Your task to perform on an android device: open sync settings in chrome Image 0: 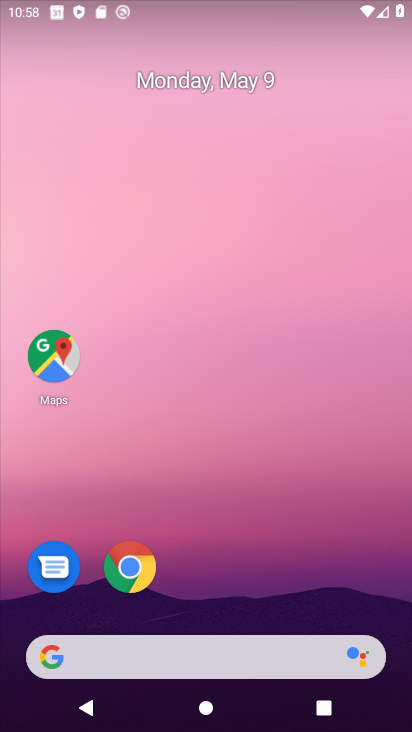
Step 0: drag from (351, 612) to (261, 25)
Your task to perform on an android device: open sync settings in chrome Image 1: 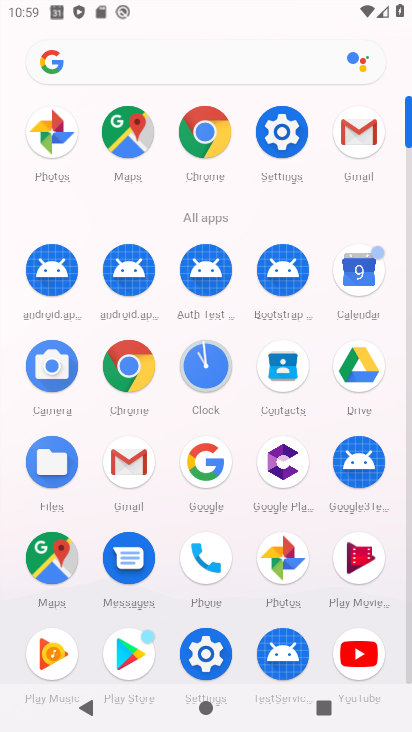
Step 1: click (197, 157)
Your task to perform on an android device: open sync settings in chrome Image 2: 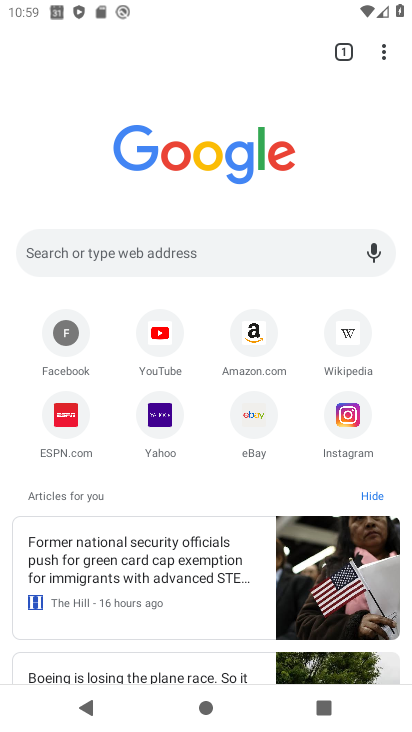
Step 2: click (386, 49)
Your task to perform on an android device: open sync settings in chrome Image 3: 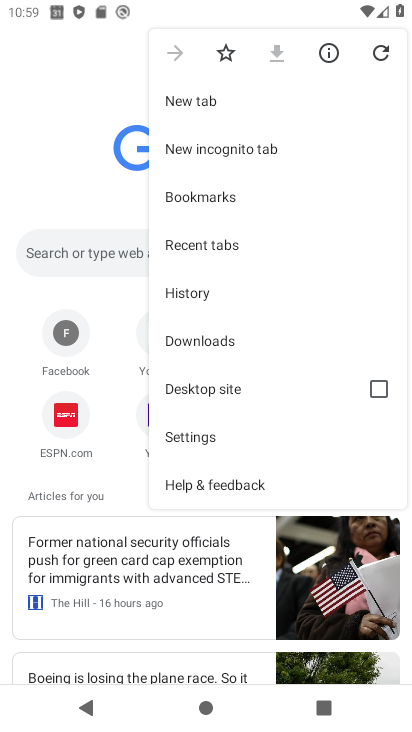
Step 3: click (209, 448)
Your task to perform on an android device: open sync settings in chrome Image 4: 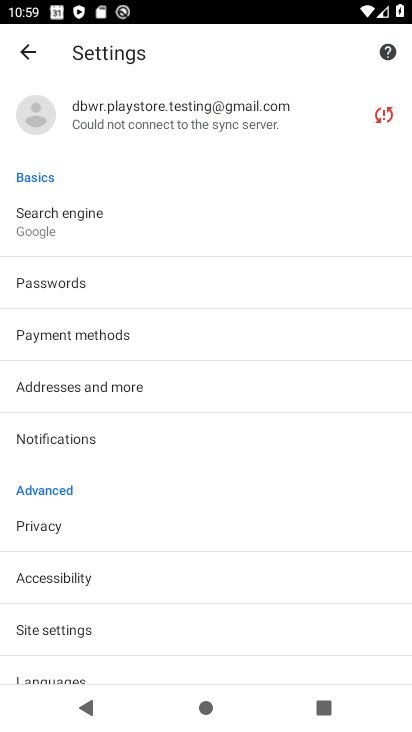
Step 4: drag from (209, 659) to (216, 467)
Your task to perform on an android device: open sync settings in chrome Image 5: 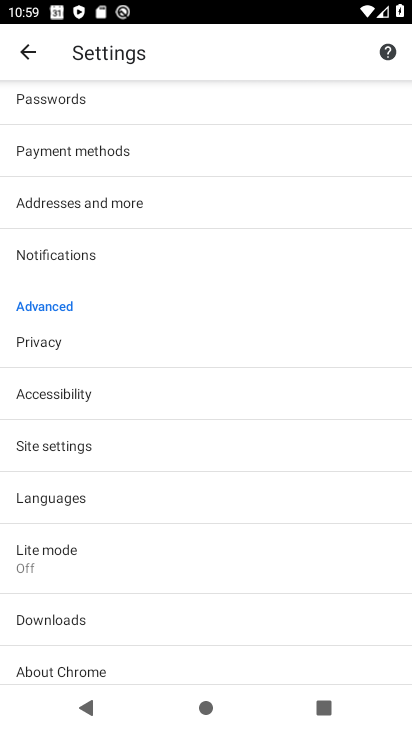
Step 5: click (98, 457)
Your task to perform on an android device: open sync settings in chrome Image 6: 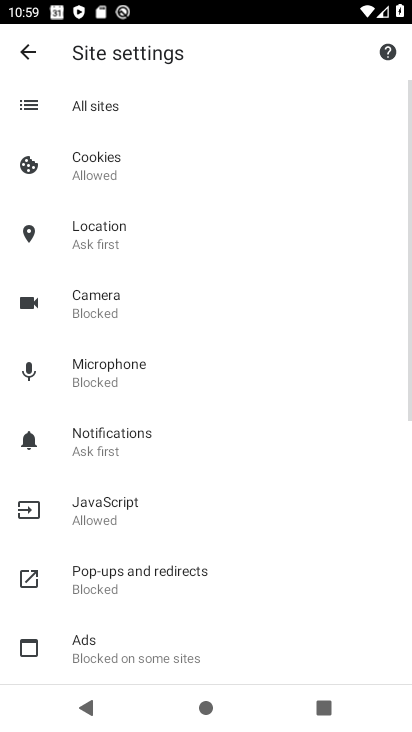
Step 6: drag from (143, 625) to (192, 196)
Your task to perform on an android device: open sync settings in chrome Image 7: 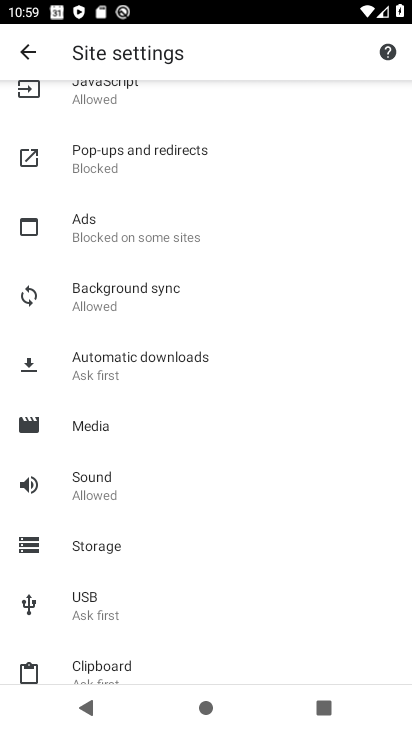
Step 7: click (126, 310)
Your task to perform on an android device: open sync settings in chrome Image 8: 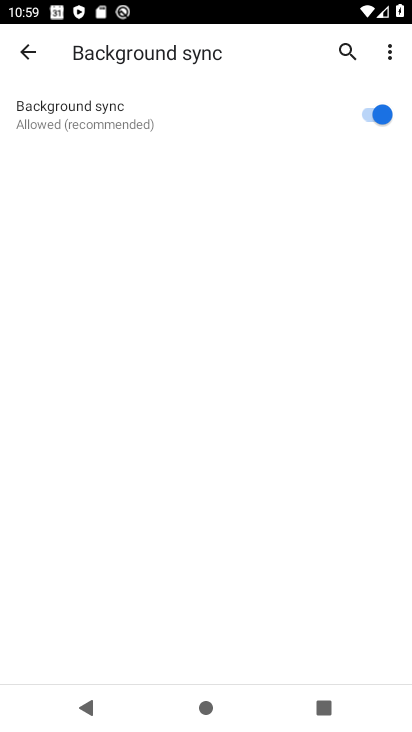
Step 8: task complete